Your task to perform on an android device: open sync settings in chrome Image 0: 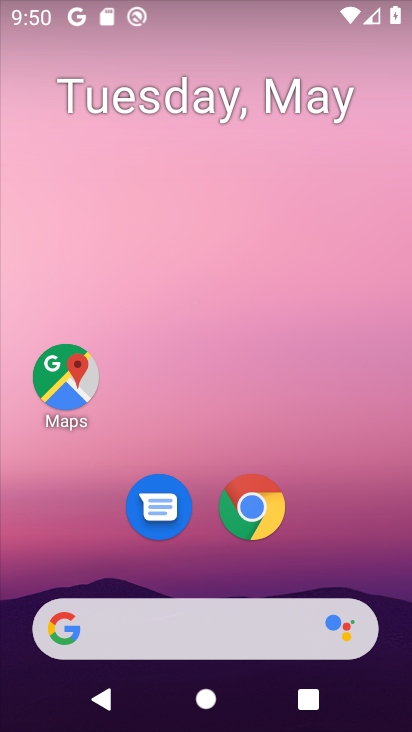
Step 0: click (242, 508)
Your task to perform on an android device: open sync settings in chrome Image 1: 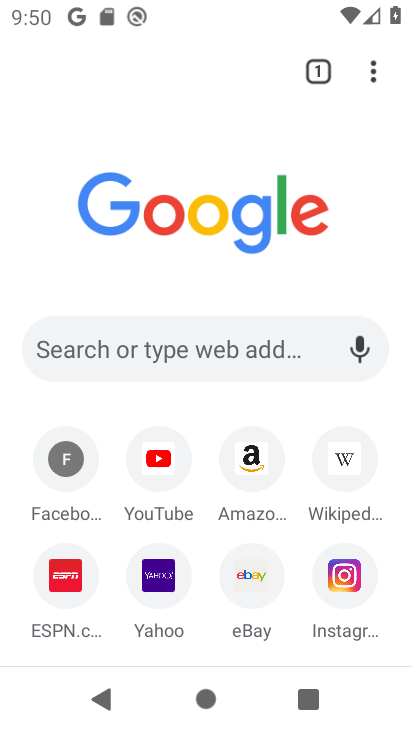
Step 1: click (373, 70)
Your task to perform on an android device: open sync settings in chrome Image 2: 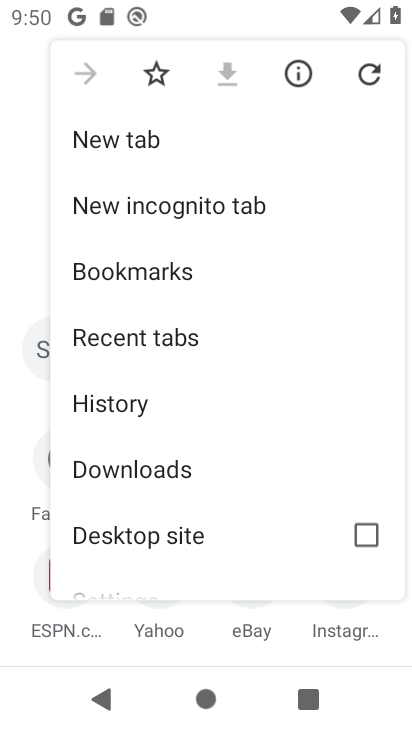
Step 2: drag from (227, 496) to (241, 161)
Your task to perform on an android device: open sync settings in chrome Image 3: 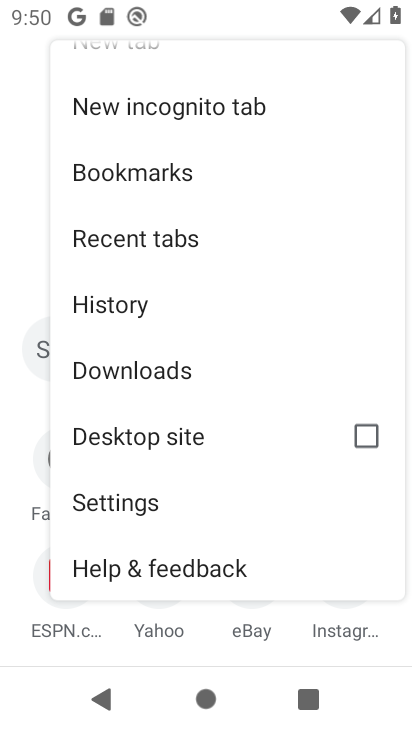
Step 3: click (139, 508)
Your task to perform on an android device: open sync settings in chrome Image 4: 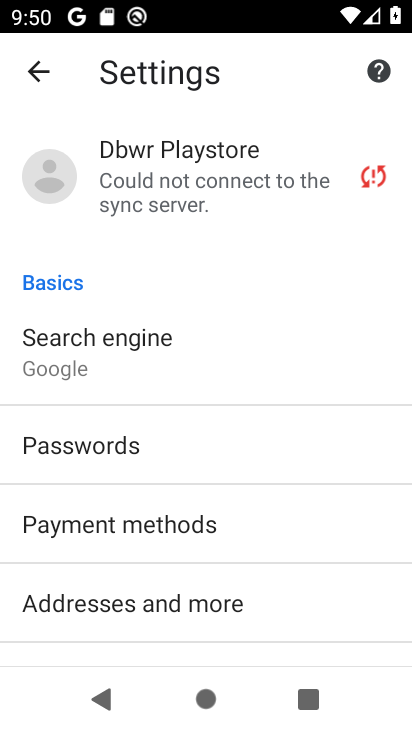
Step 4: click (192, 174)
Your task to perform on an android device: open sync settings in chrome Image 5: 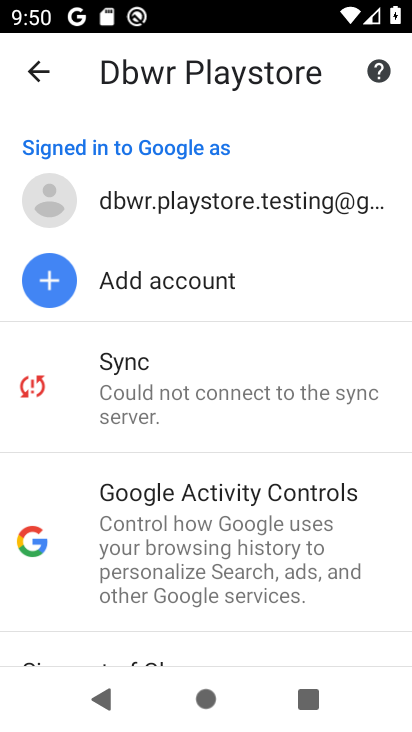
Step 5: click (197, 387)
Your task to perform on an android device: open sync settings in chrome Image 6: 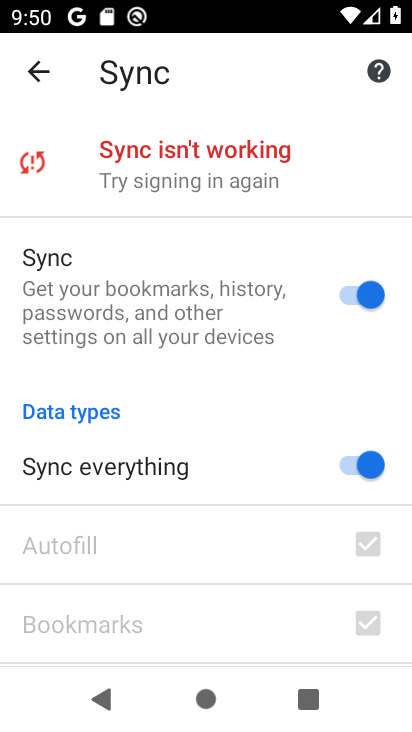
Step 6: task complete